Your task to perform on an android device: check android version Image 0: 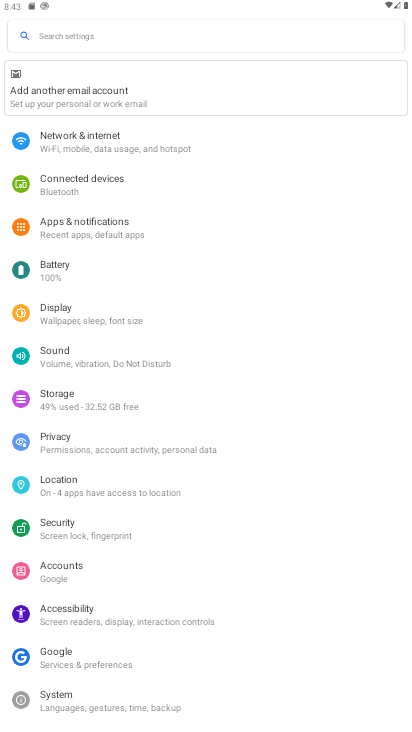
Step 0: drag from (311, 500) to (307, 288)
Your task to perform on an android device: check android version Image 1: 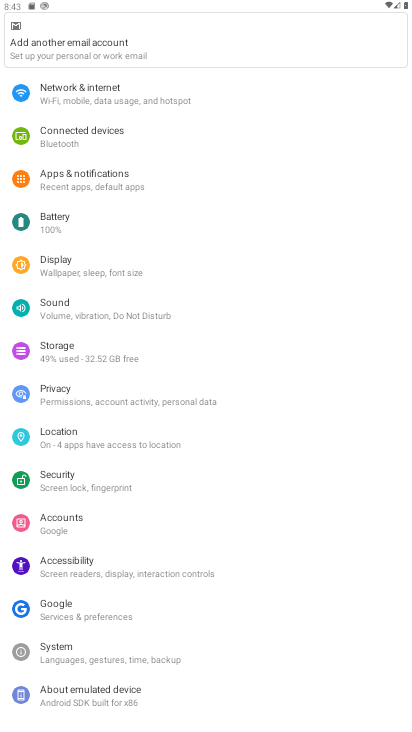
Step 1: click (92, 681)
Your task to perform on an android device: check android version Image 2: 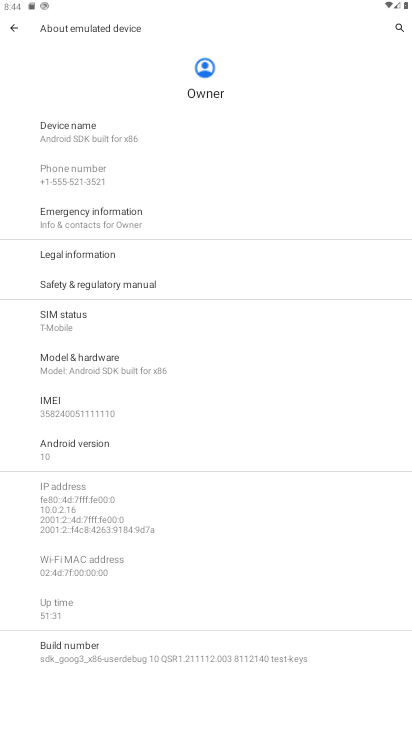
Step 2: click (70, 448)
Your task to perform on an android device: check android version Image 3: 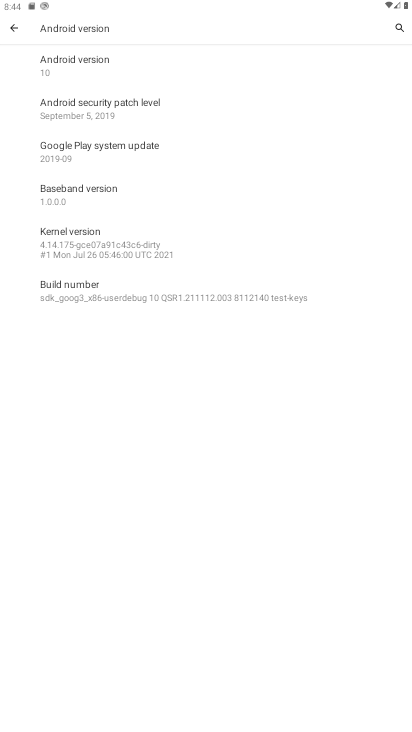
Step 3: click (90, 63)
Your task to perform on an android device: check android version Image 4: 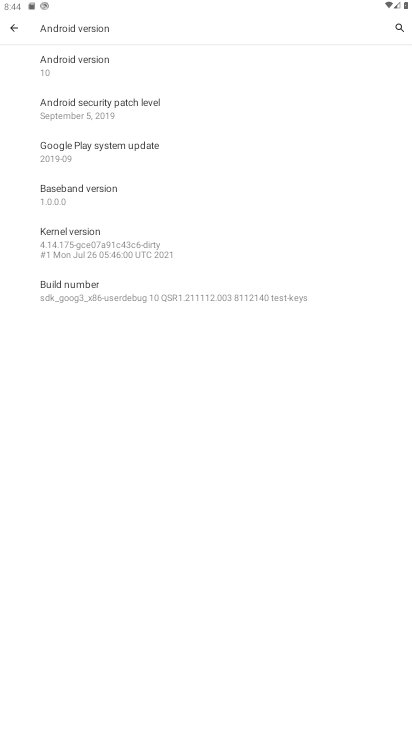
Step 4: task complete